Your task to perform on an android device: Go to Maps Image 0: 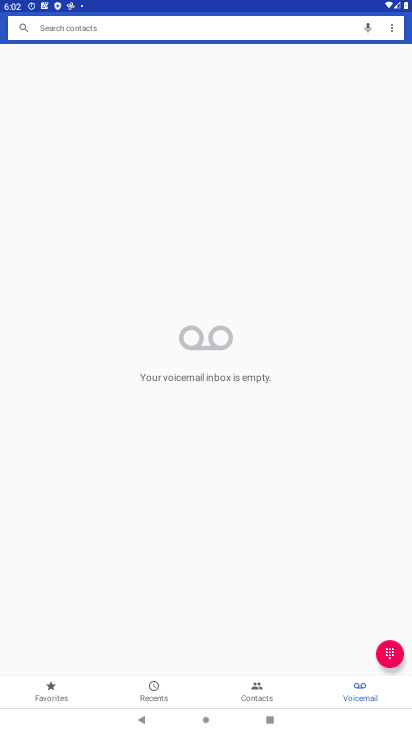
Step 0: press home button
Your task to perform on an android device: Go to Maps Image 1: 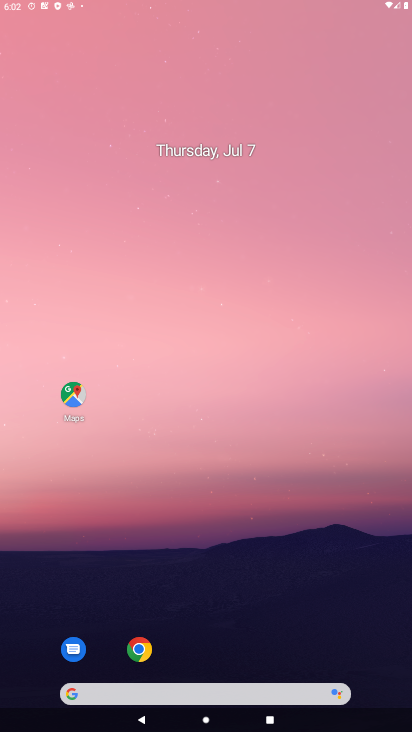
Step 1: drag from (364, 652) to (270, 37)
Your task to perform on an android device: Go to Maps Image 2: 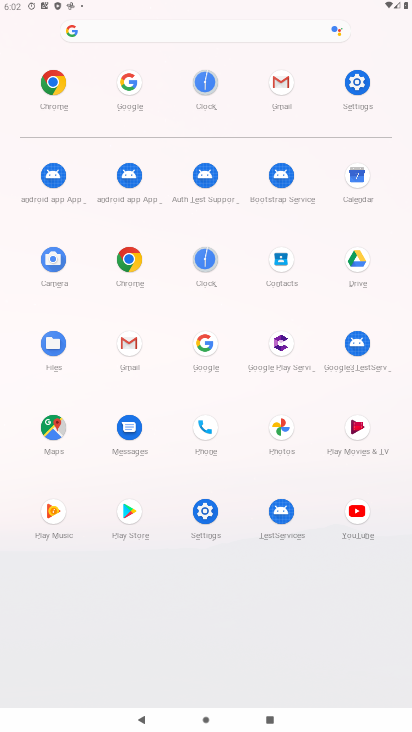
Step 2: click (56, 423)
Your task to perform on an android device: Go to Maps Image 3: 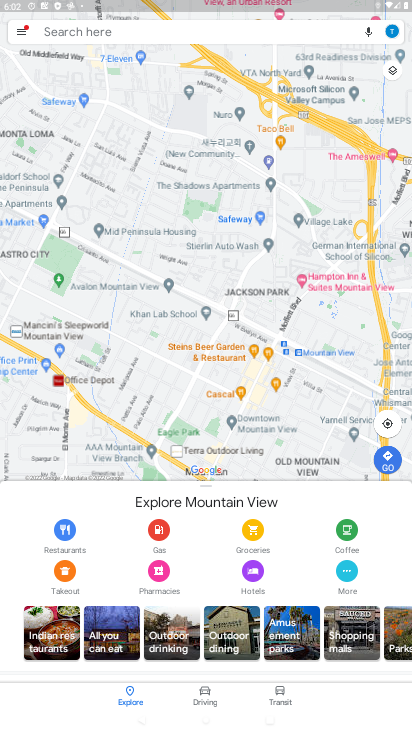
Step 3: task complete